Your task to perform on an android device: Go to settings Image 0: 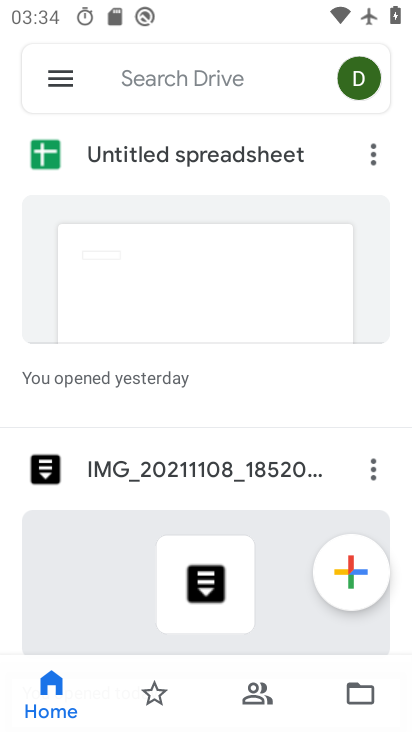
Step 0: press home button
Your task to perform on an android device: Go to settings Image 1: 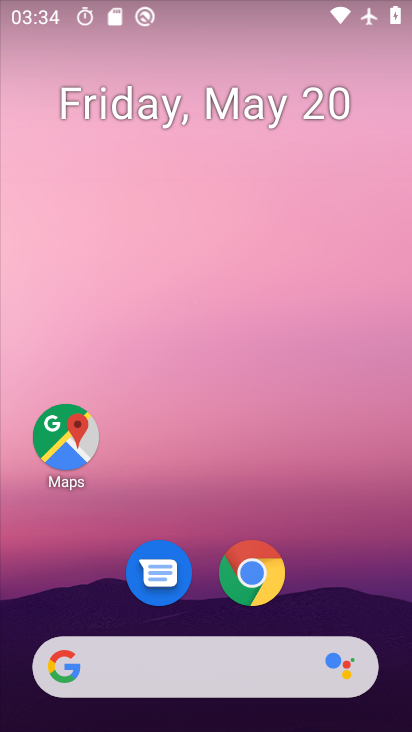
Step 1: drag from (213, 594) to (196, 226)
Your task to perform on an android device: Go to settings Image 2: 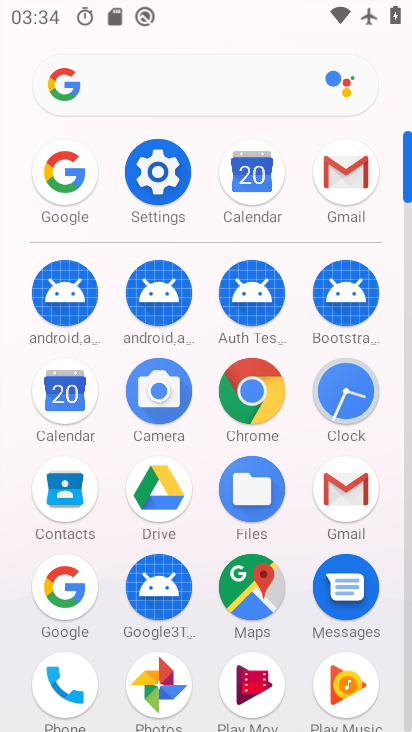
Step 2: click (161, 197)
Your task to perform on an android device: Go to settings Image 3: 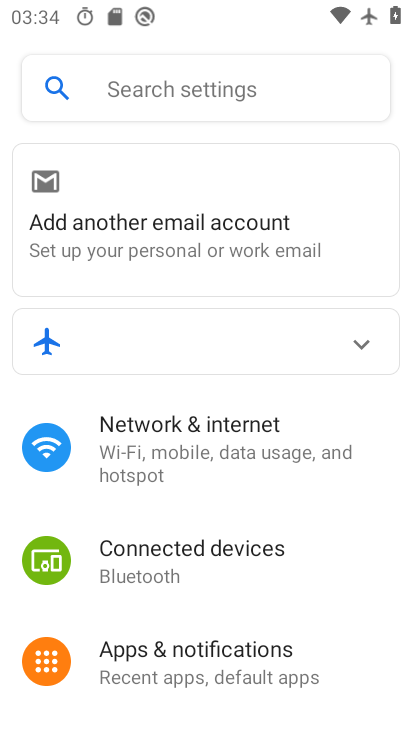
Step 3: task complete